Your task to perform on an android device: Do I have any events today? Image 0: 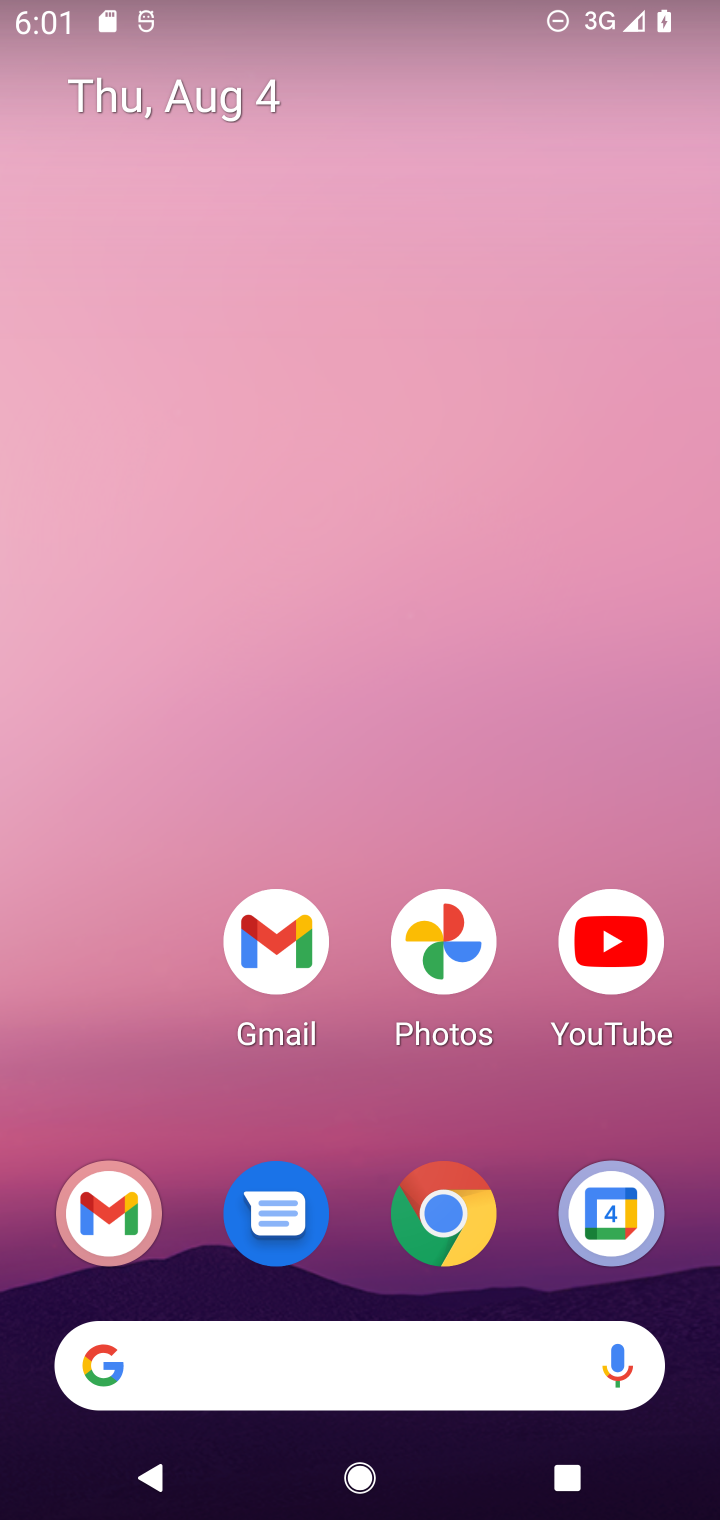
Step 0: drag from (157, 1123) to (184, 404)
Your task to perform on an android device: Do I have any events today? Image 1: 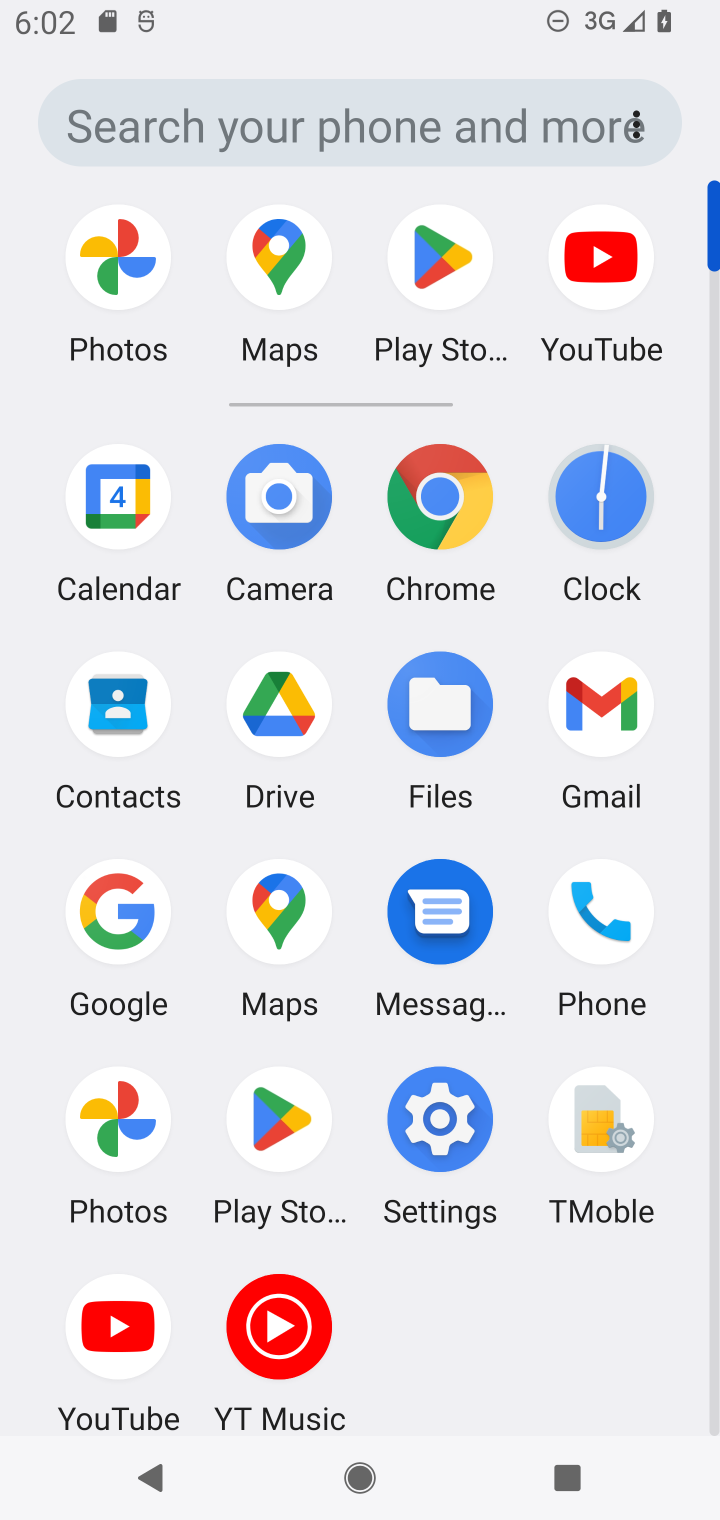
Step 1: click (119, 533)
Your task to perform on an android device: Do I have any events today? Image 2: 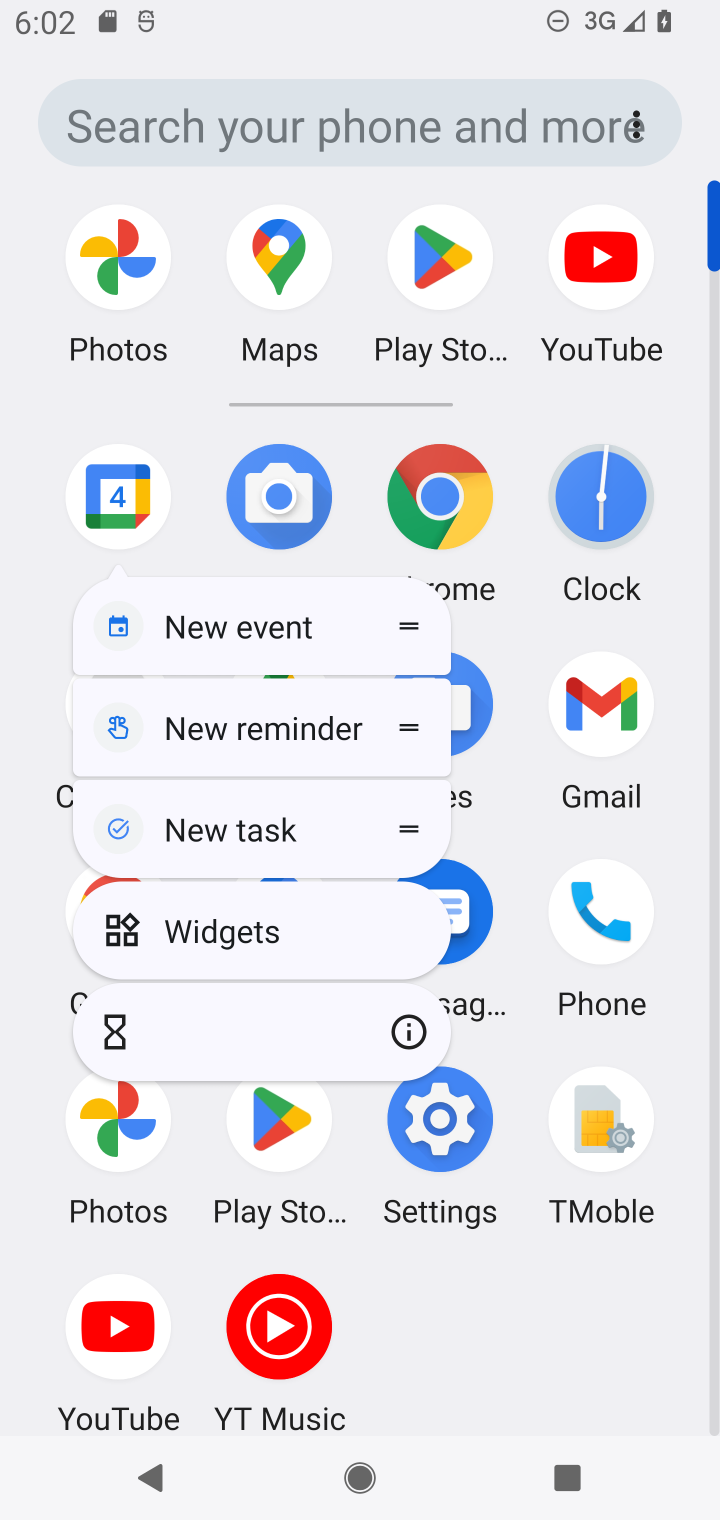
Step 2: click (110, 492)
Your task to perform on an android device: Do I have any events today? Image 3: 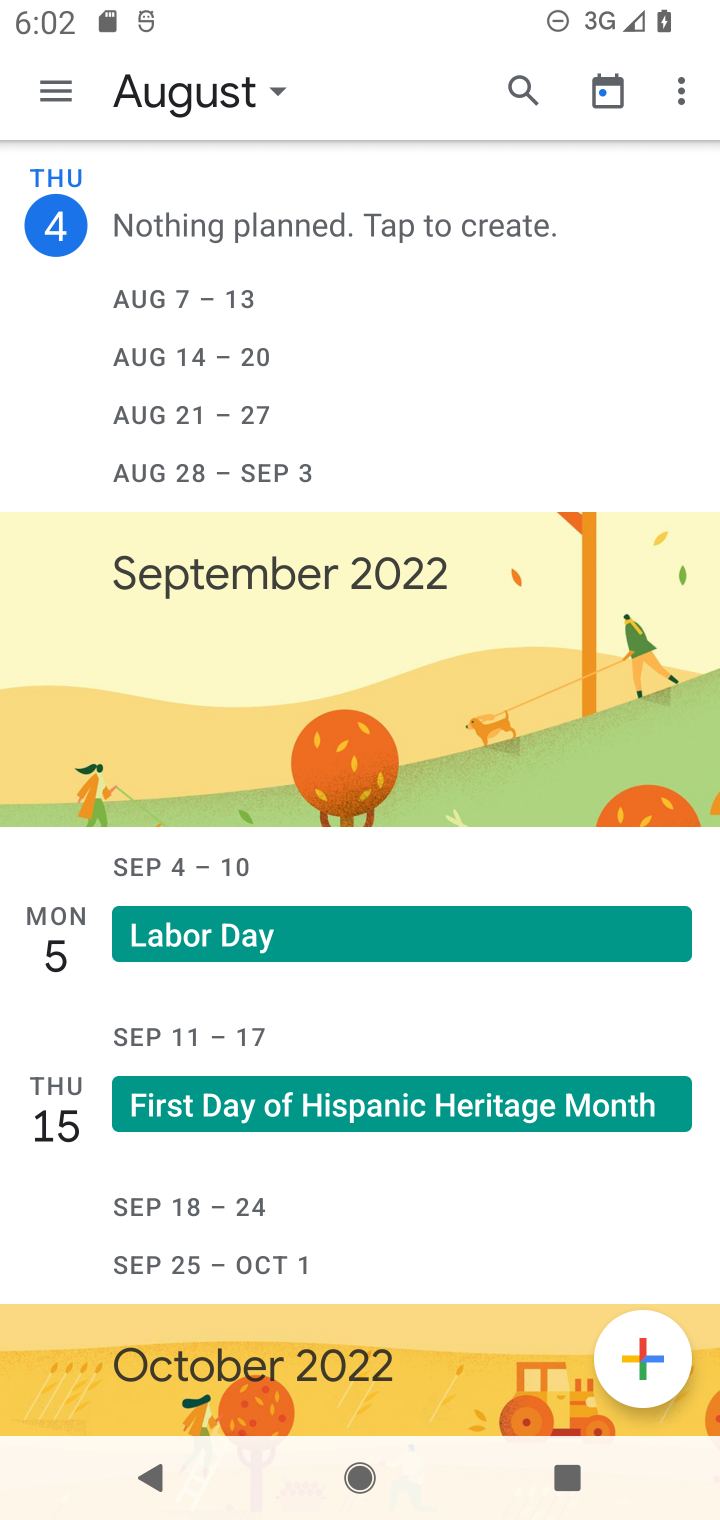
Step 3: task complete